Your task to perform on an android device: all mails in gmail Image 0: 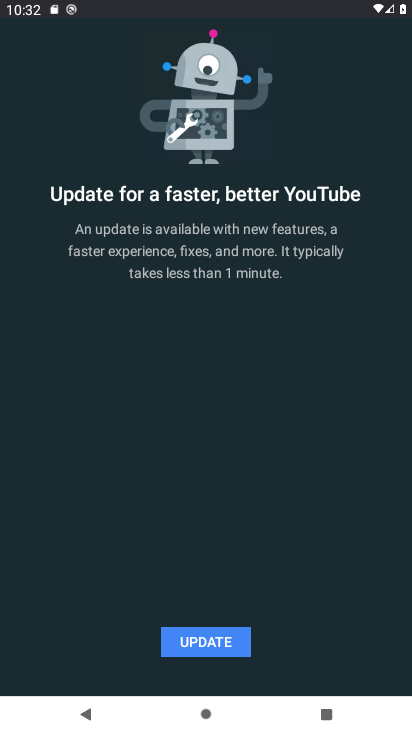
Step 0: press home button
Your task to perform on an android device: all mails in gmail Image 1: 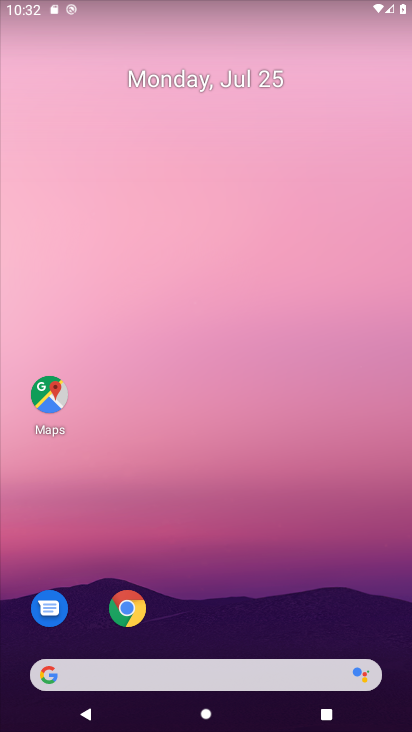
Step 1: drag from (219, 643) to (196, 232)
Your task to perform on an android device: all mails in gmail Image 2: 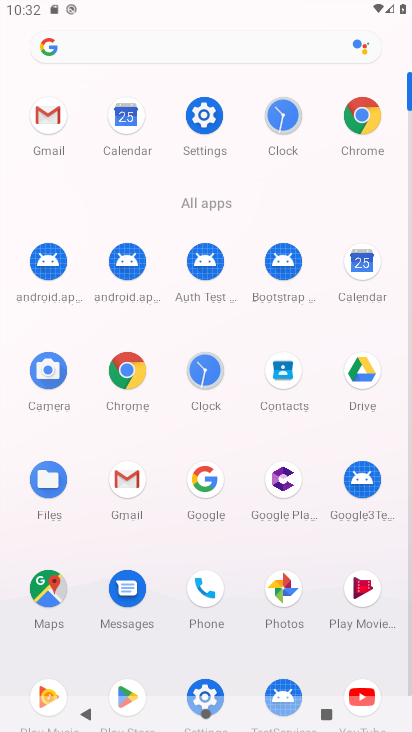
Step 2: click (48, 113)
Your task to perform on an android device: all mails in gmail Image 3: 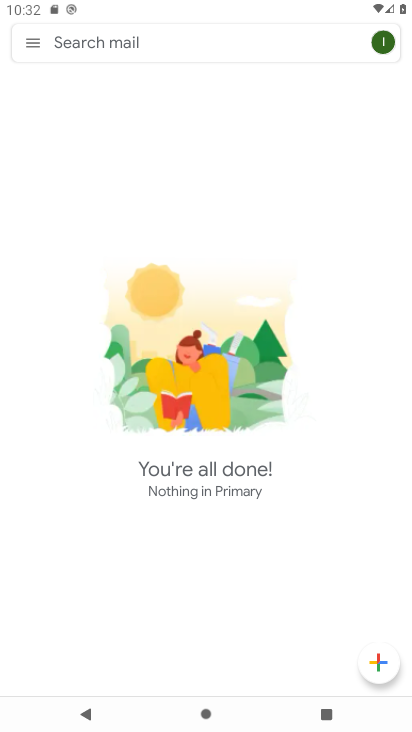
Step 3: click (30, 35)
Your task to perform on an android device: all mails in gmail Image 4: 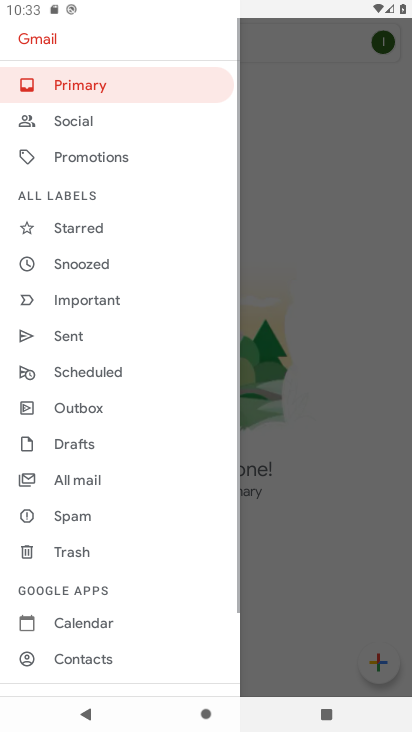
Step 4: click (110, 469)
Your task to perform on an android device: all mails in gmail Image 5: 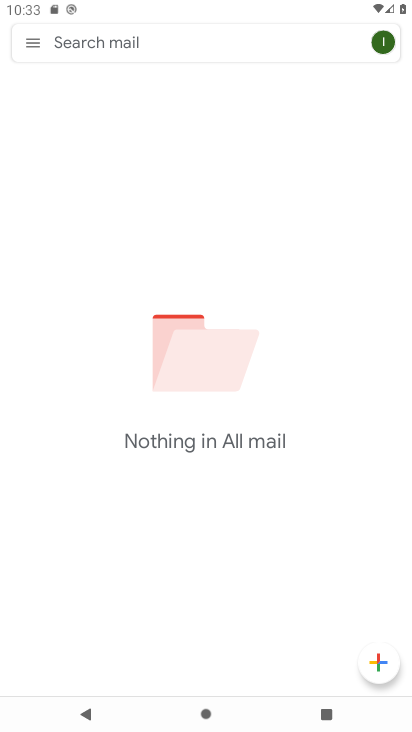
Step 5: task complete